Your task to perform on an android device: Go to location settings Image 0: 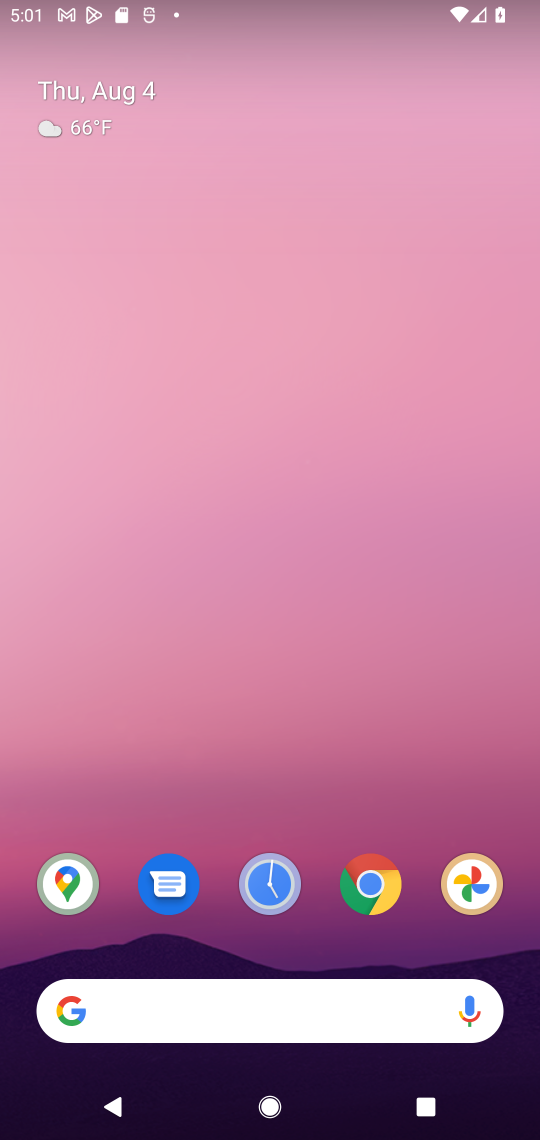
Step 0: press home button
Your task to perform on an android device: Go to location settings Image 1: 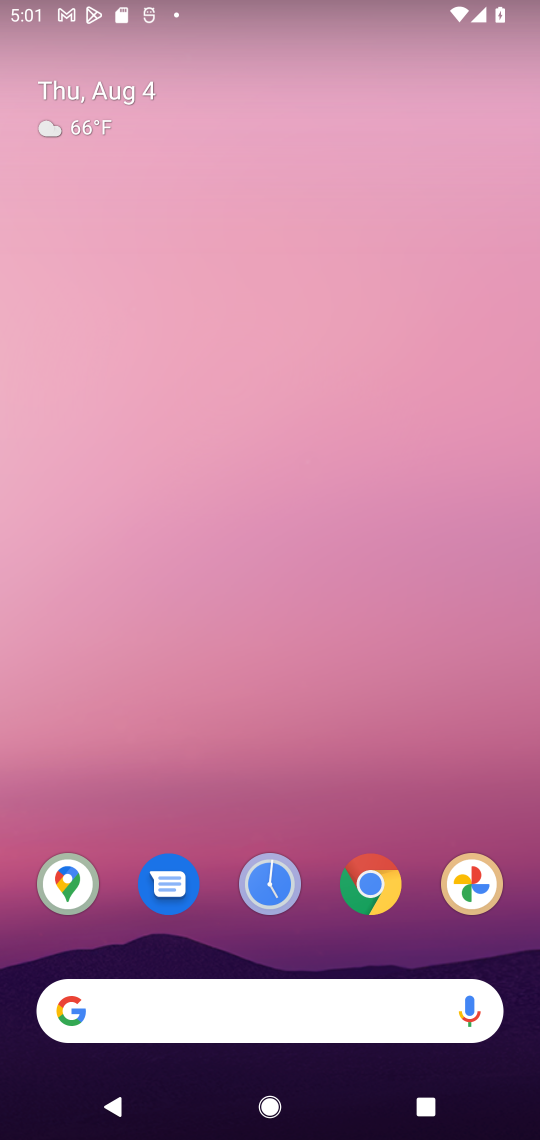
Step 1: drag from (312, 963) to (234, 57)
Your task to perform on an android device: Go to location settings Image 2: 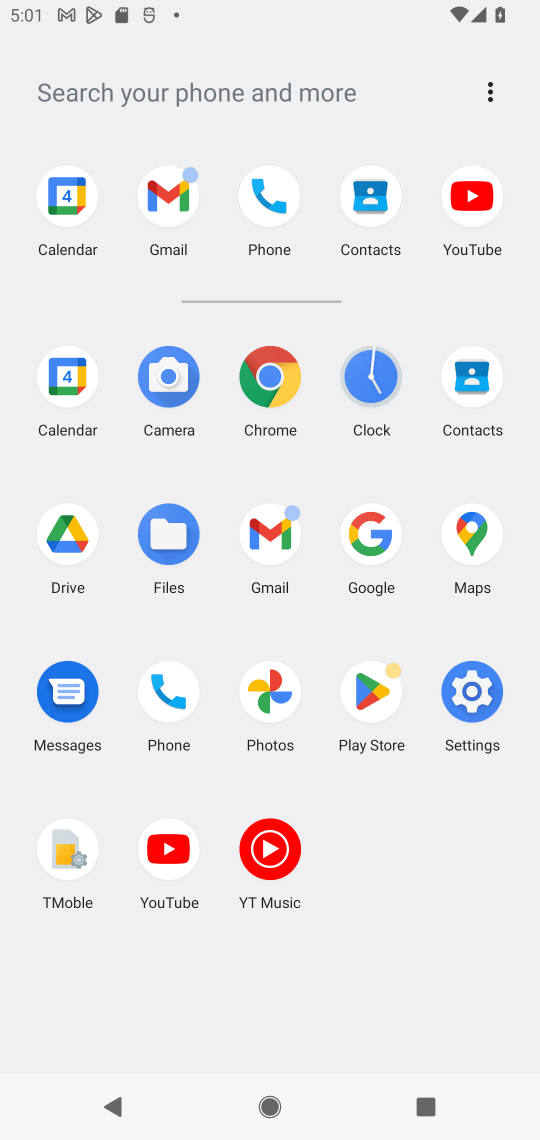
Step 2: click (489, 762)
Your task to perform on an android device: Go to location settings Image 3: 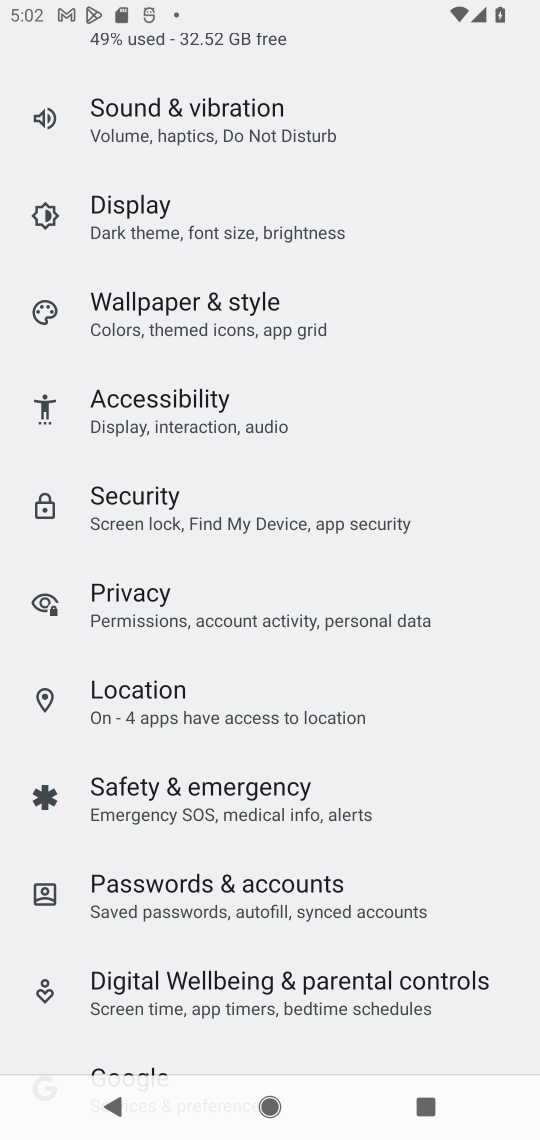
Step 3: click (233, 722)
Your task to perform on an android device: Go to location settings Image 4: 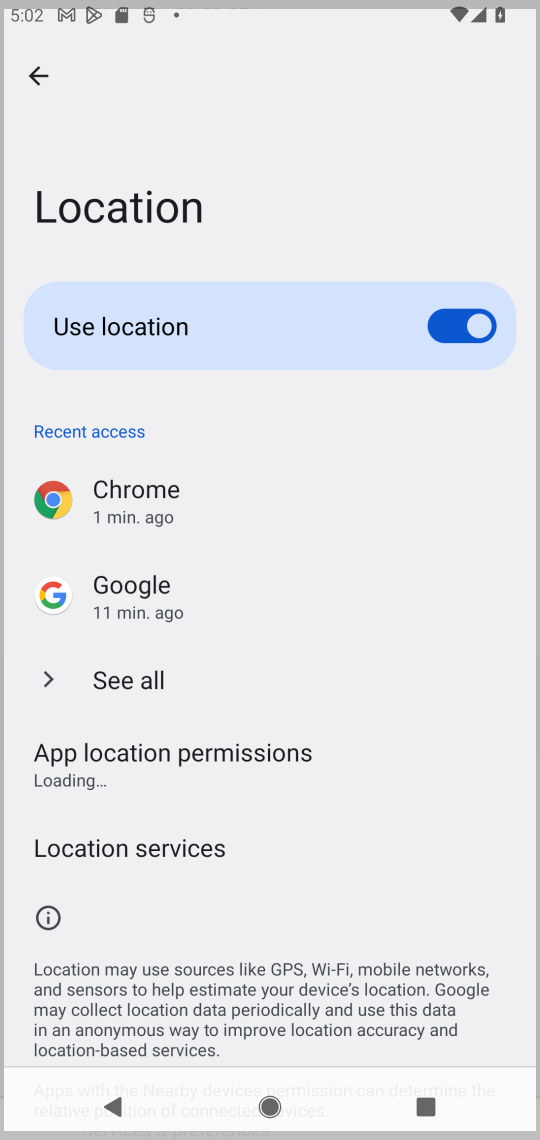
Step 4: task complete